Your task to perform on an android device: move an email to a new category in the gmail app Image 0: 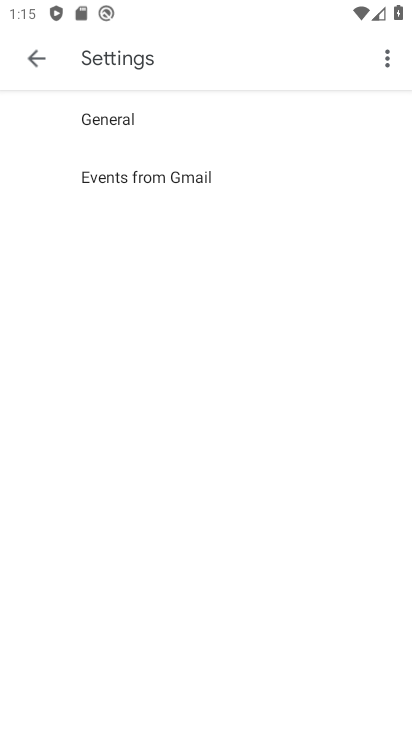
Step 0: press home button
Your task to perform on an android device: move an email to a new category in the gmail app Image 1: 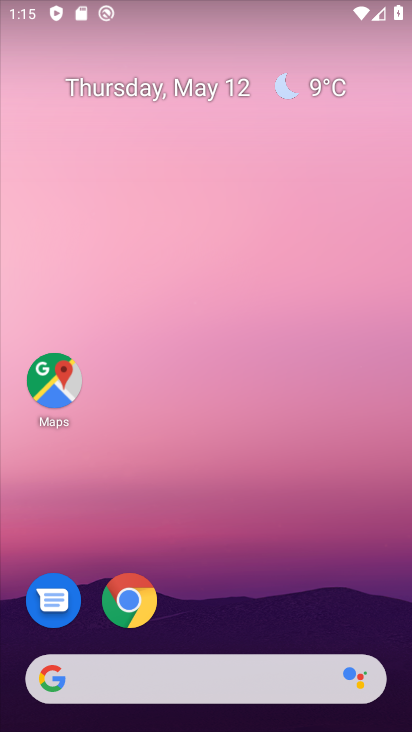
Step 1: drag from (329, 595) to (360, 234)
Your task to perform on an android device: move an email to a new category in the gmail app Image 2: 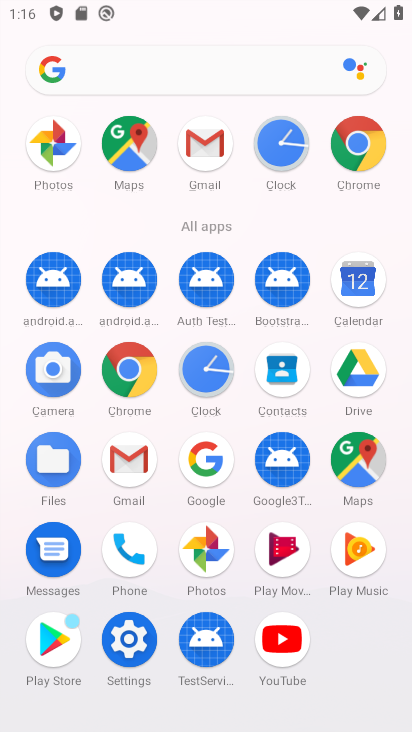
Step 2: click (110, 470)
Your task to perform on an android device: move an email to a new category in the gmail app Image 3: 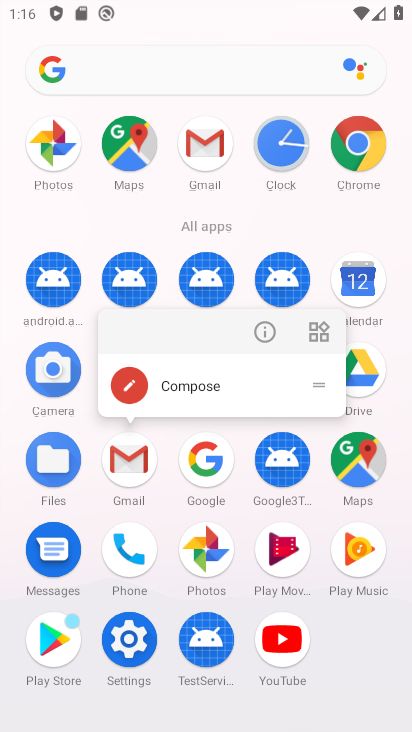
Step 3: click (269, 386)
Your task to perform on an android device: move an email to a new category in the gmail app Image 4: 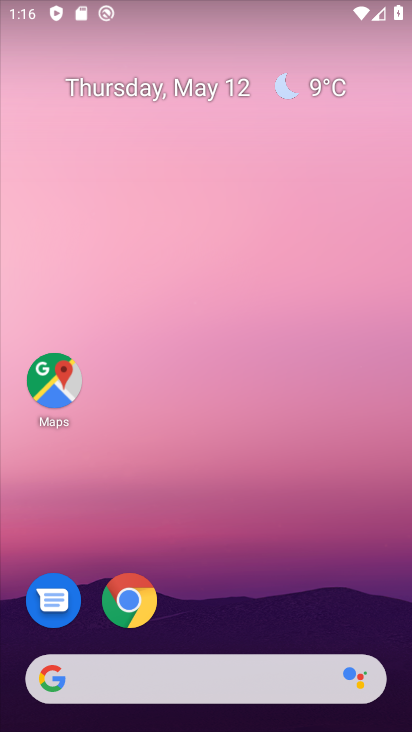
Step 4: drag from (312, 569) to (313, 96)
Your task to perform on an android device: move an email to a new category in the gmail app Image 5: 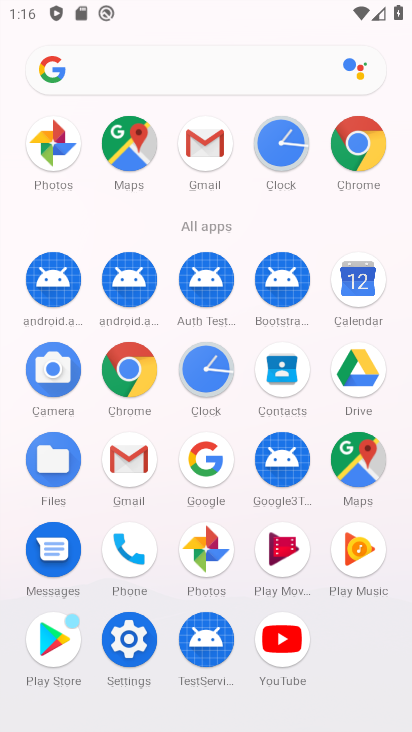
Step 5: click (139, 464)
Your task to perform on an android device: move an email to a new category in the gmail app Image 6: 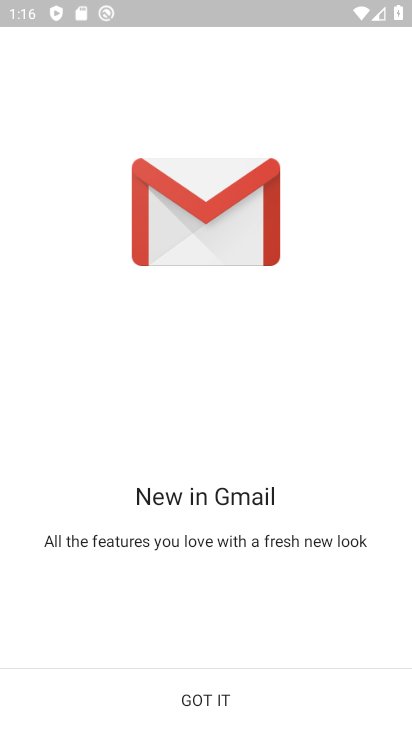
Step 6: click (244, 694)
Your task to perform on an android device: move an email to a new category in the gmail app Image 7: 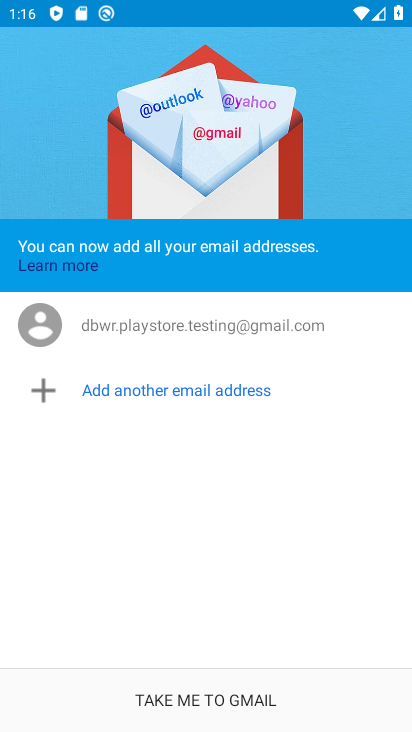
Step 7: click (244, 694)
Your task to perform on an android device: move an email to a new category in the gmail app Image 8: 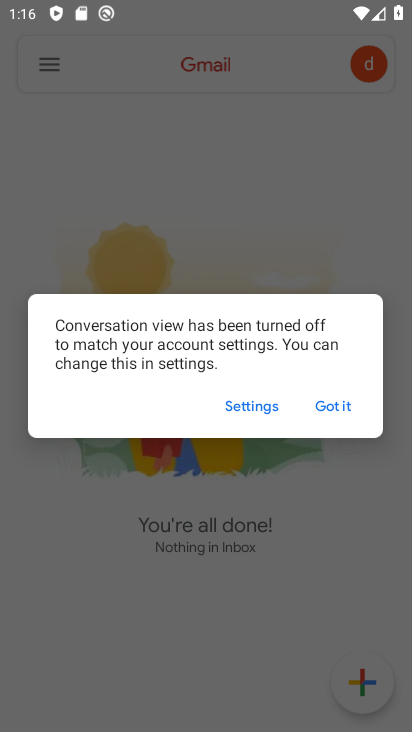
Step 8: click (316, 397)
Your task to perform on an android device: move an email to a new category in the gmail app Image 9: 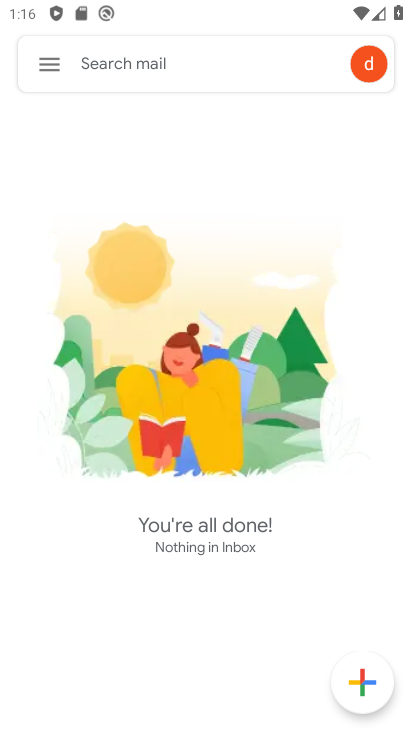
Step 9: click (51, 66)
Your task to perform on an android device: move an email to a new category in the gmail app Image 10: 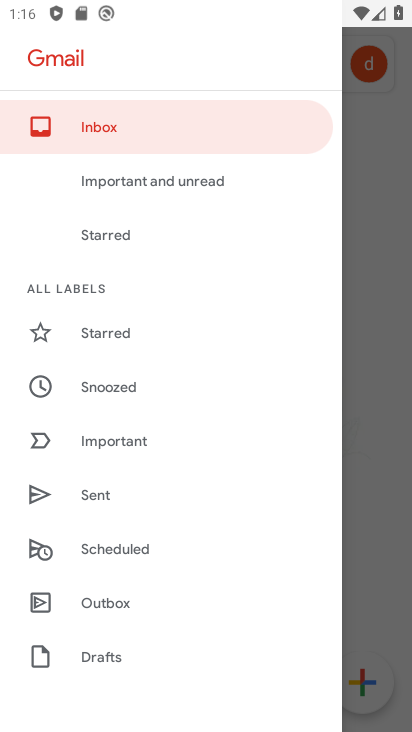
Step 10: task complete